Your task to perform on an android device: check the backup settings in the google photos Image 0: 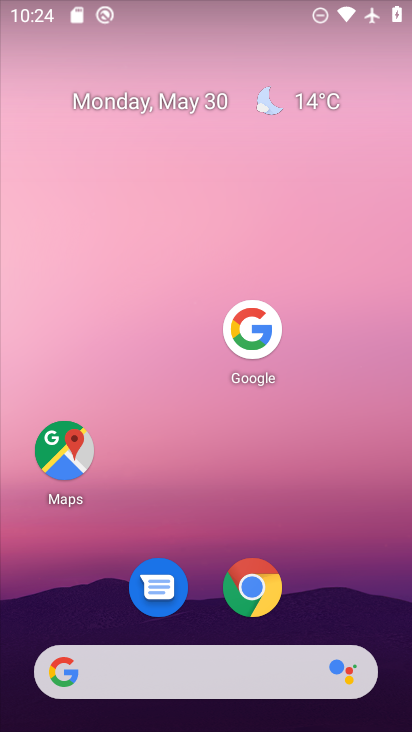
Step 0: drag from (154, 654) to (354, 98)
Your task to perform on an android device: check the backup settings in the google photos Image 1: 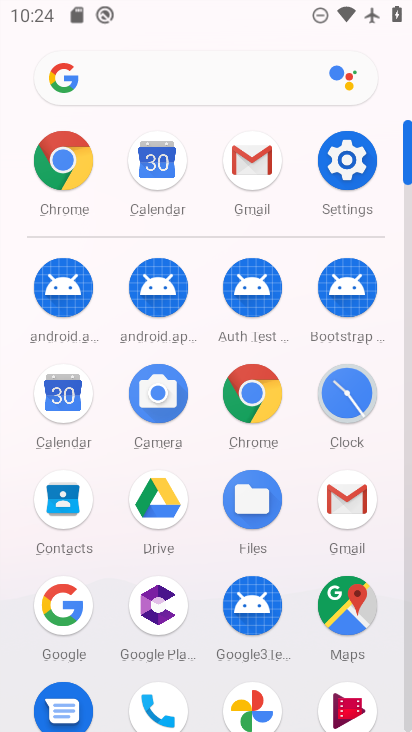
Step 1: click (239, 698)
Your task to perform on an android device: check the backup settings in the google photos Image 2: 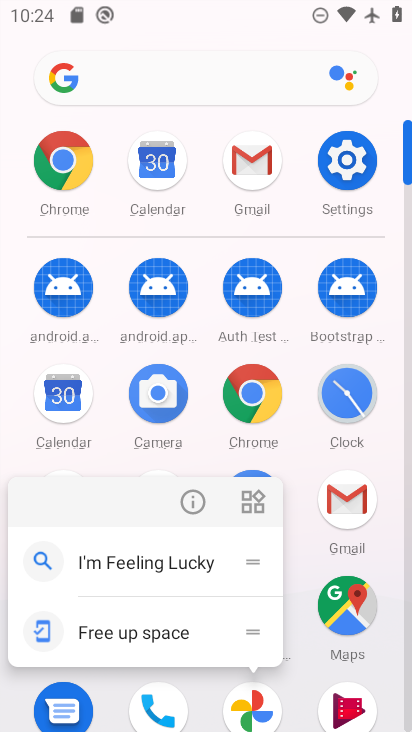
Step 2: click (238, 716)
Your task to perform on an android device: check the backup settings in the google photos Image 3: 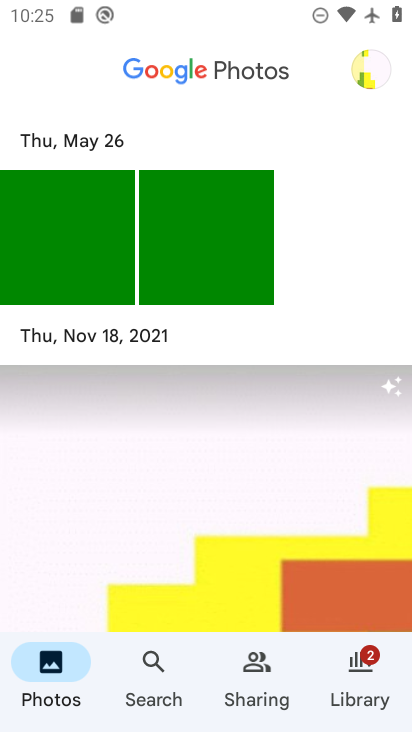
Step 3: click (358, 70)
Your task to perform on an android device: check the backup settings in the google photos Image 4: 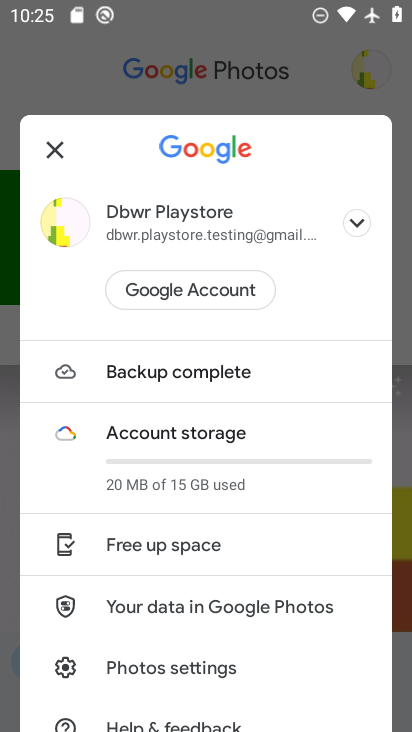
Step 4: click (220, 665)
Your task to perform on an android device: check the backup settings in the google photos Image 5: 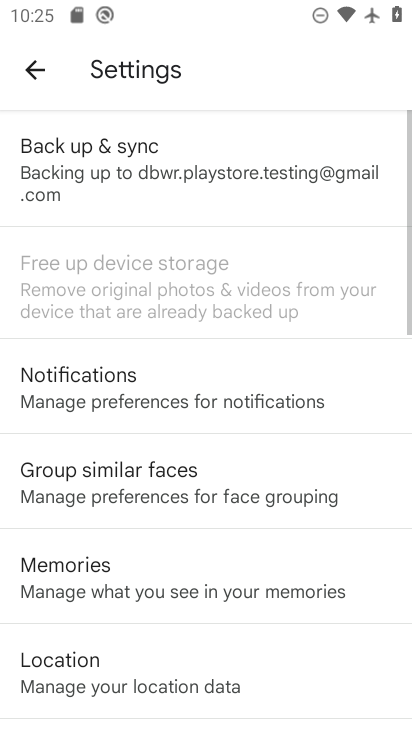
Step 5: click (189, 171)
Your task to perform on an android device: check the backup settings in the google photos Image 6: 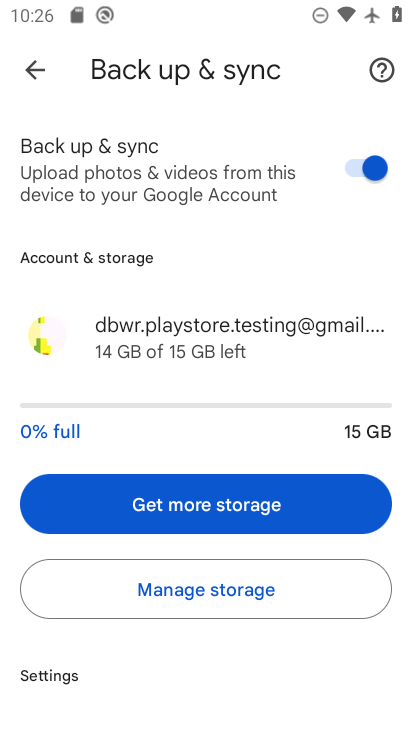
Step 6: task complete